Your task to perform on an android device: Open the map Image 0: 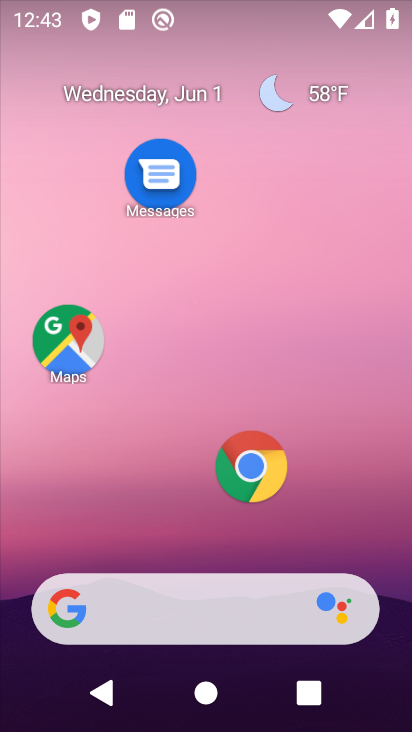
Step 0: click (73, 354)
Your task to perform on an android device: Open the map Image 1: 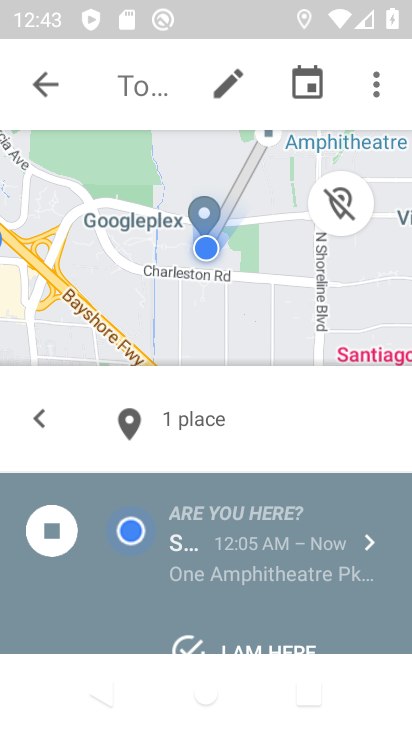
Step 1: click (52, 91)
Your task to perform on an android device: Open the map Image 2: 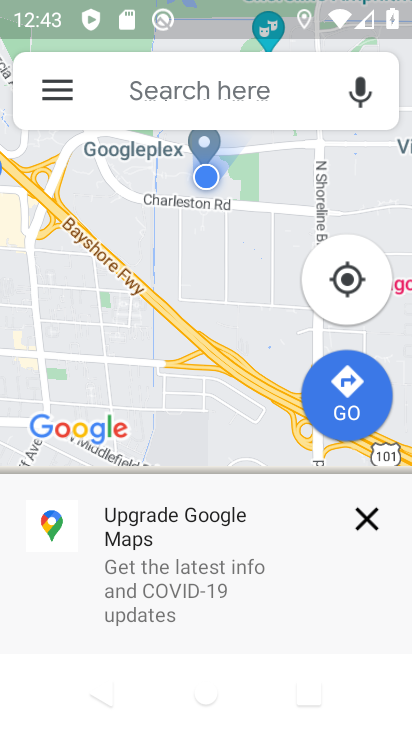
Step 2: click (364, 491)
Your task to perform on an android device: Open the map Image 3: 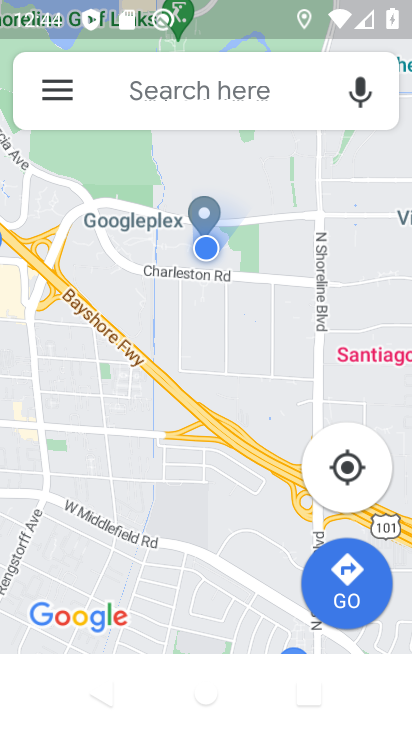
Step 3: task complete